Your task to perform on an android device: change the clock display to show seconds Image 0: 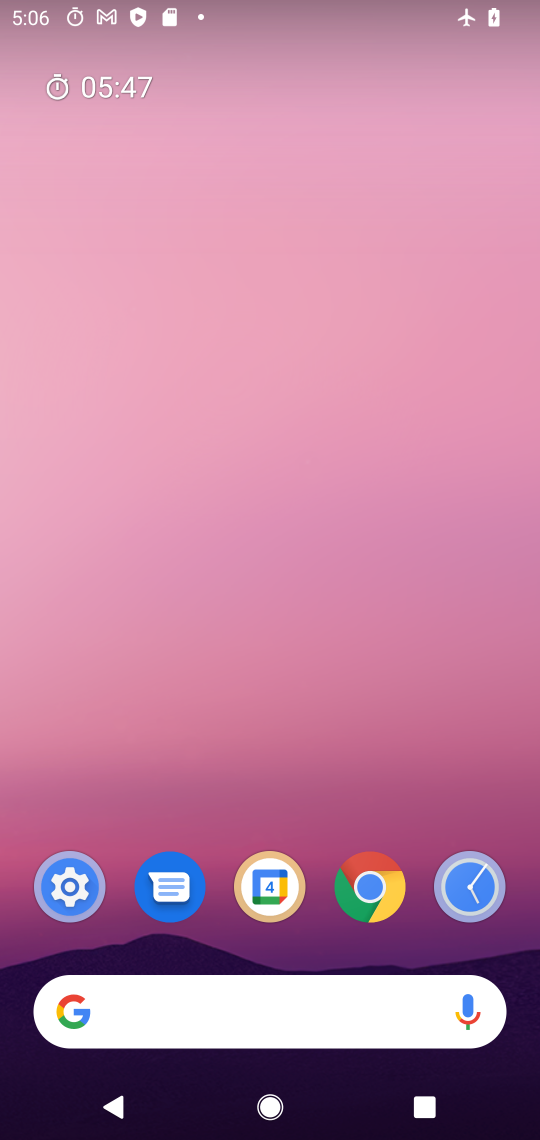
Step 0: click (470, 889)
Your task to perform on an android device: change the clock display to show seconds Image 1: 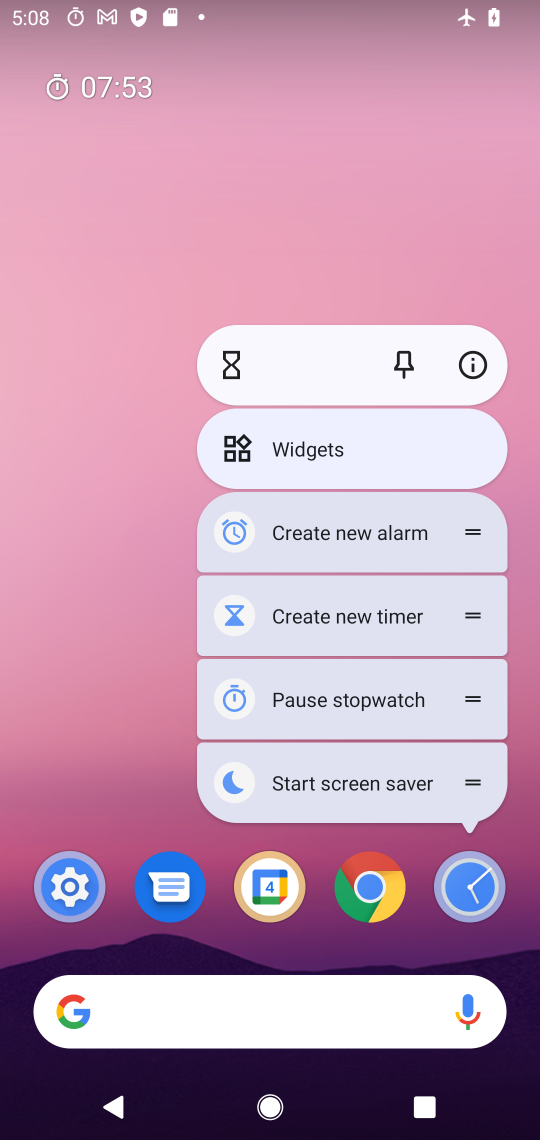
Step 1: click (472, 885)
Your task to perform on an android device: change the clock display to show seconds Image 2: 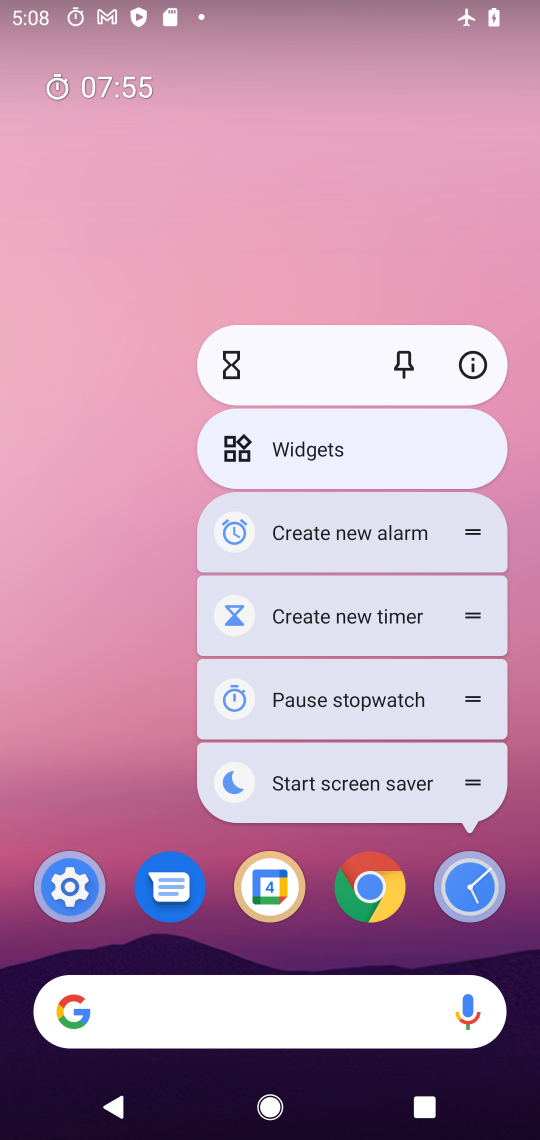
Step 2: click (472, 885)
Your task to perform on an android device: change the clock display to show seconds Image 3: 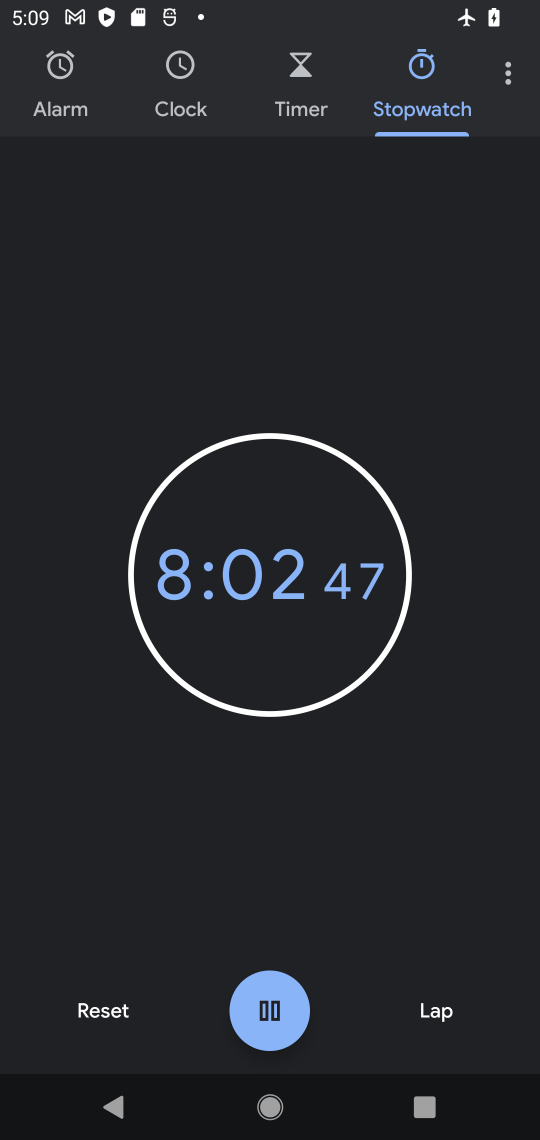
Step 3: click (506, 77)
Your task to perform on an android device: change the clock display to show seconds Image 4: 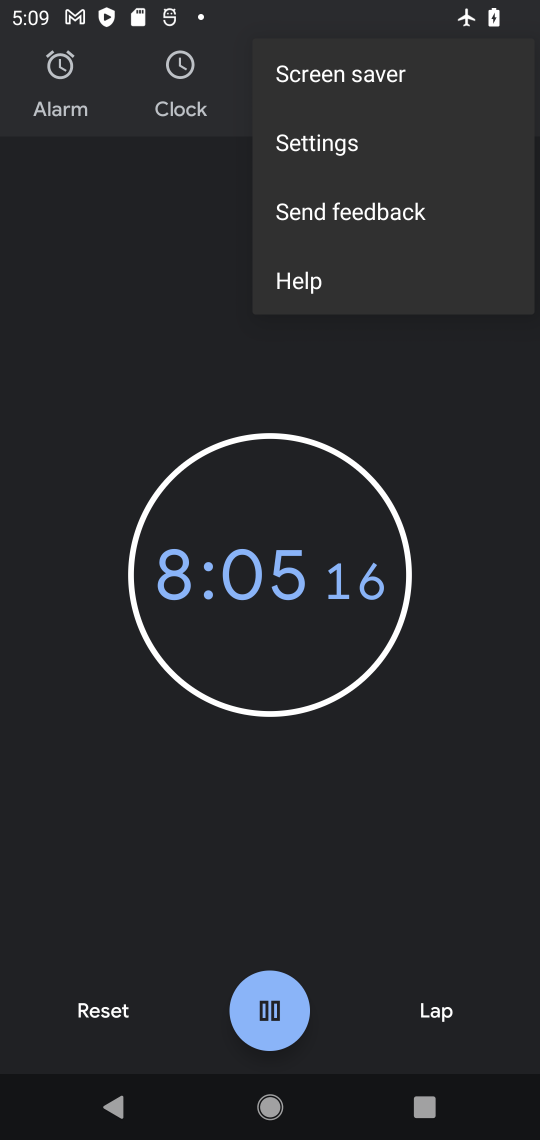
Step 4: click (346, 133)
Your task to perform on an android device: change the clock display to show seconds Image 5: 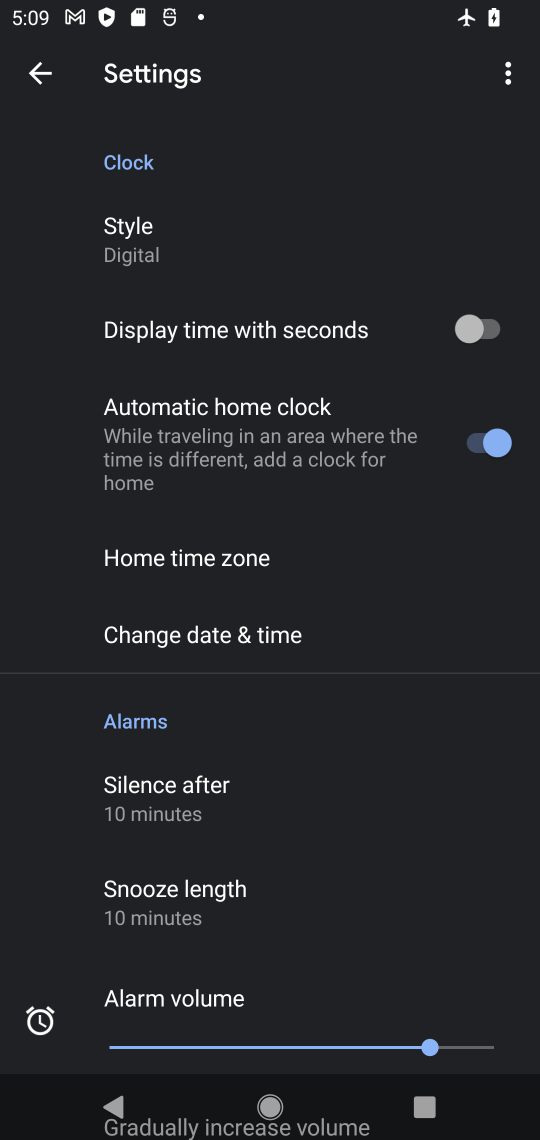
Step 5: click (475, 337)
Your task to perform on an android device: change the clock display to show seconds Image 6: 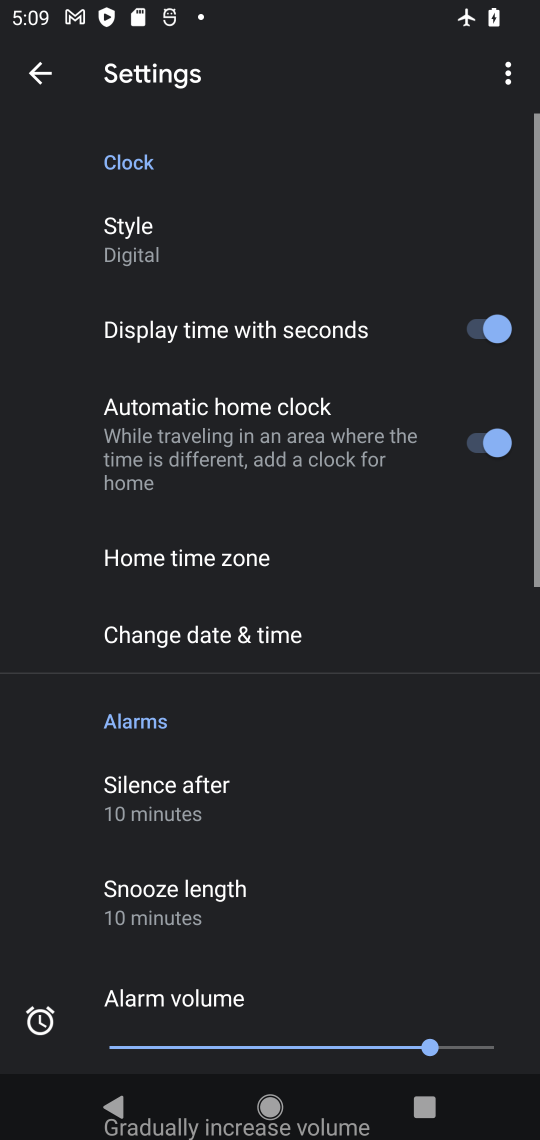
Step 6: task complete